Your task to perform on an android device: visit the assistant section in the google photos Image 0: 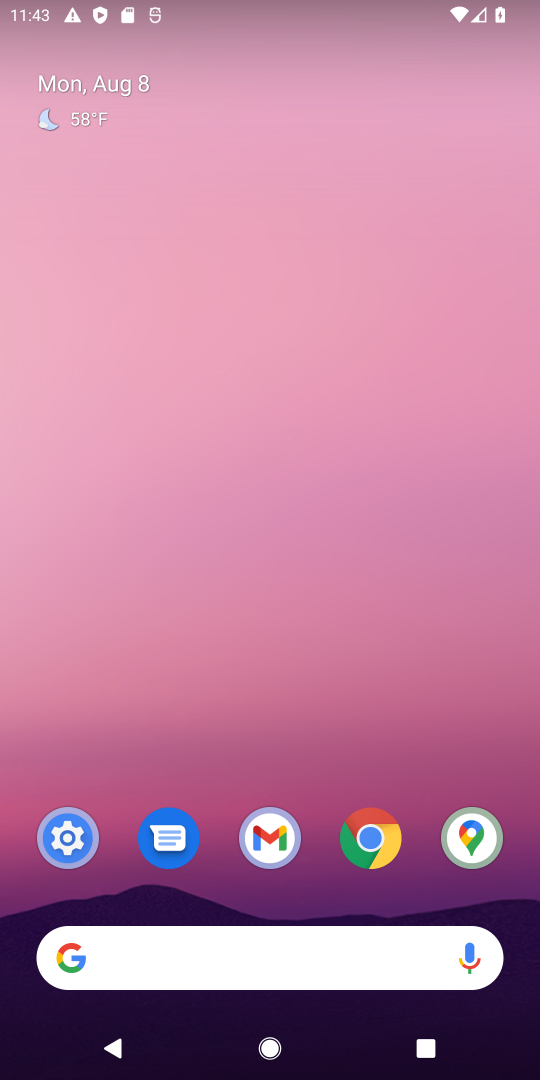
Step 0: press home button
Your task to perform on an android device: visit the assistant section in the google photos Image 1: 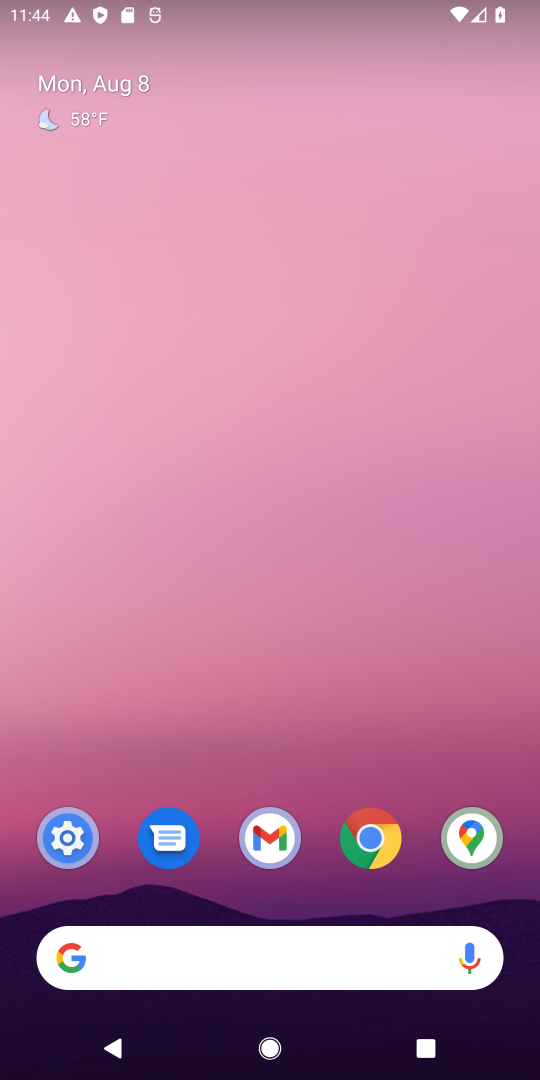
Step 1: drag from (312, 889) to (405, 94)
Your task to perform on an android device: visit the assistant section in the google photos Image 2: 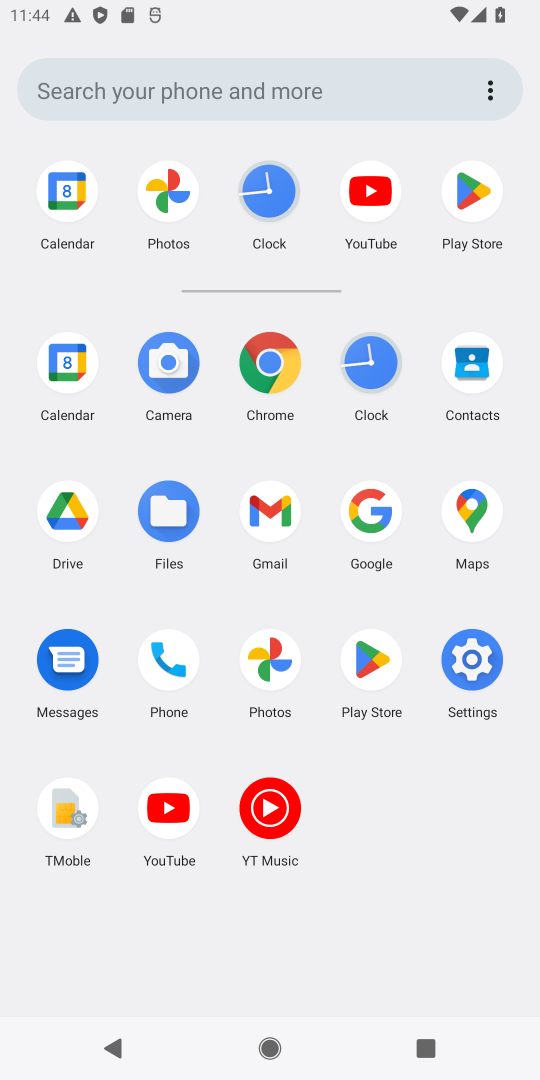
Step 2: click (164, 189)
Your task to perform on an android device: visit the assistant section in the google photos Image 3: 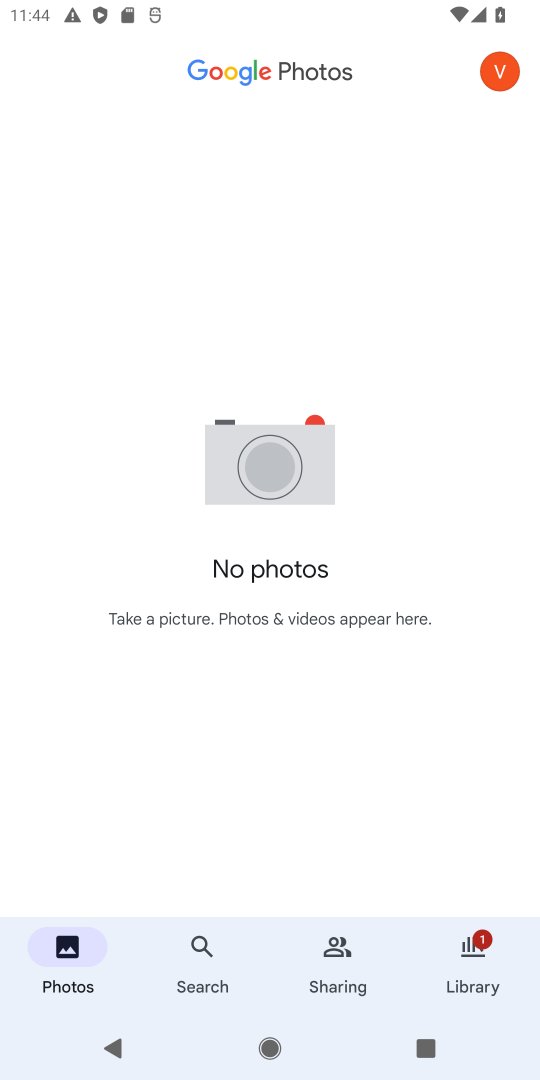
Step 3: click (500, 68)
Your task to perform on an android device: visit the assistant section in the google photos Image 4: 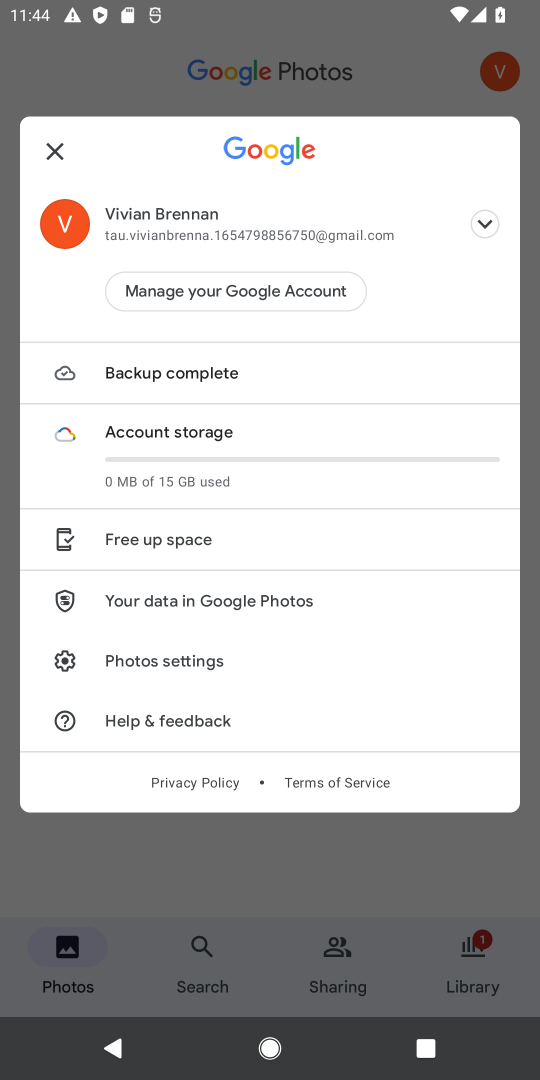
Step 4: click (470, 948)
Your task to perform on an android device: visit the assistant section in the google photos Image 5: 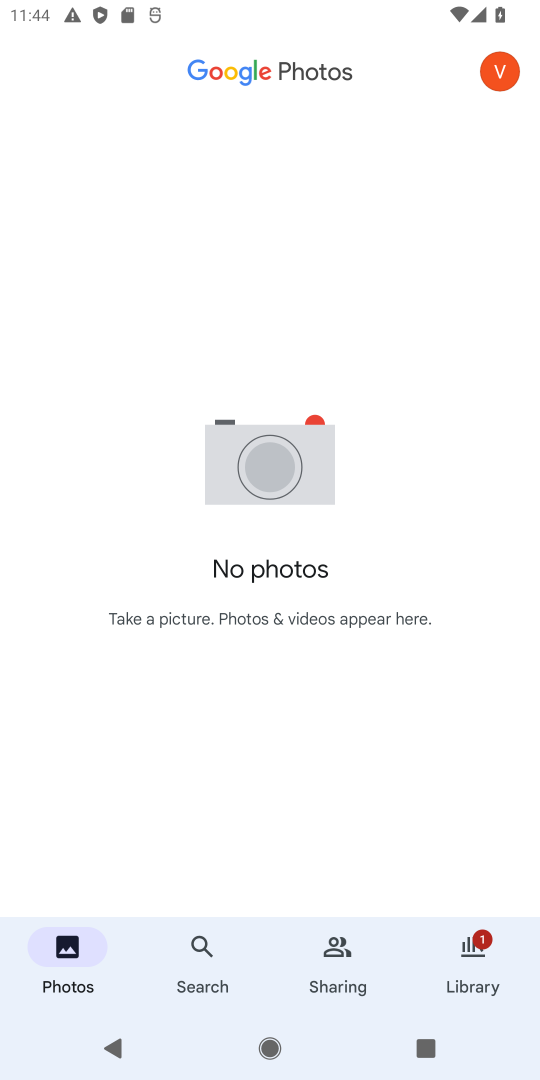
Step 5: click (470, 948)
Your task to perform on an android device: visit the assistant section in the google photos Image 6: 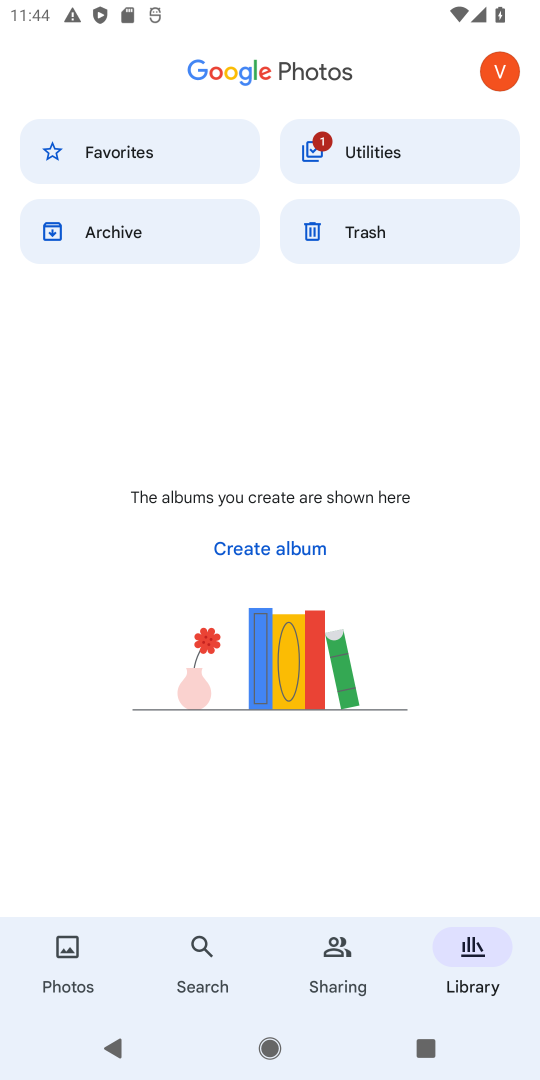
Step 6: task complete